Your task to perform on an android device: Search for logitech g pro on bestbuy.com, select the first entry, add it to the cart, then select checkout. Image 0: 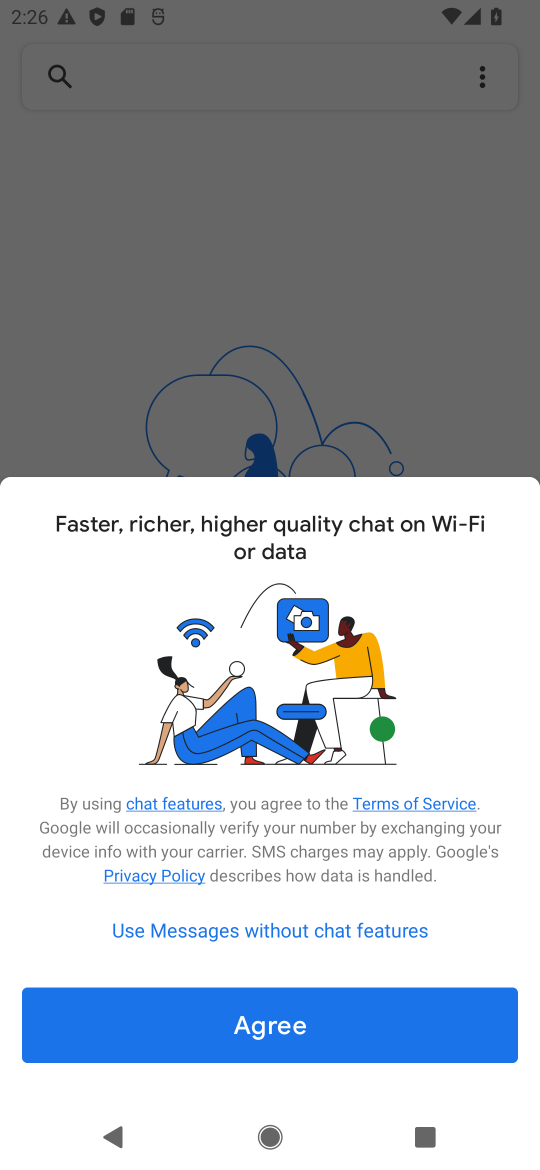
Step 0: press home button
Your task to perform on an android device: Search for logitech g pro on bestbuy.com, select the first entry, add it to the cart, then select checkout. Image 1: 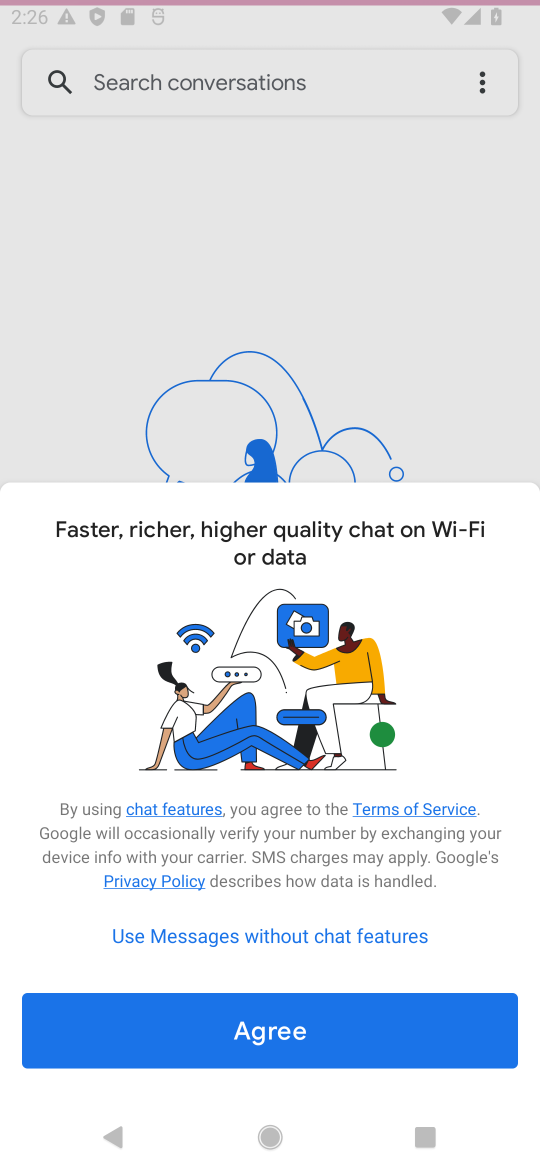
Step 1: press home button
Your task to perform on an android device: Search for logitech g pro on bestbuy.com, select the first entry, add it to the cart, then select checkout. Image 2: 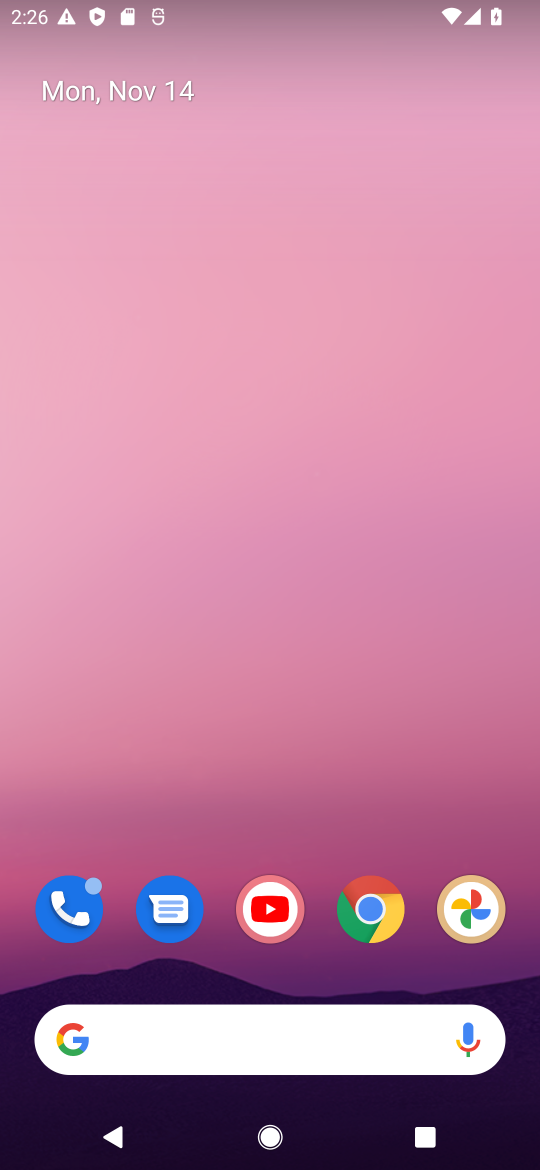
Step 2: drag from (320, 970) to (414, 66)
Your task to perform on an android device: Search for logitech g pro on bestbuy.com, select the first entry, add it to the cart, then select checkout. Image 3: 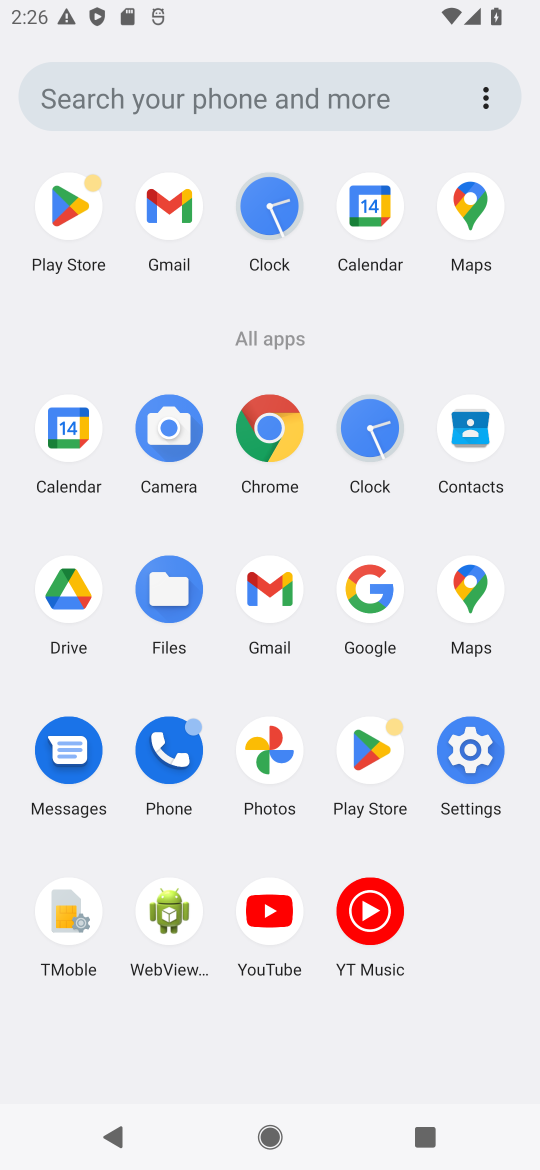
Step 3: click (268, 427)
Your task to perform on an android device: Search for logitech g pro on bestbuy.com, select the first entry, add it to the cart, then select checkout. Image 4: 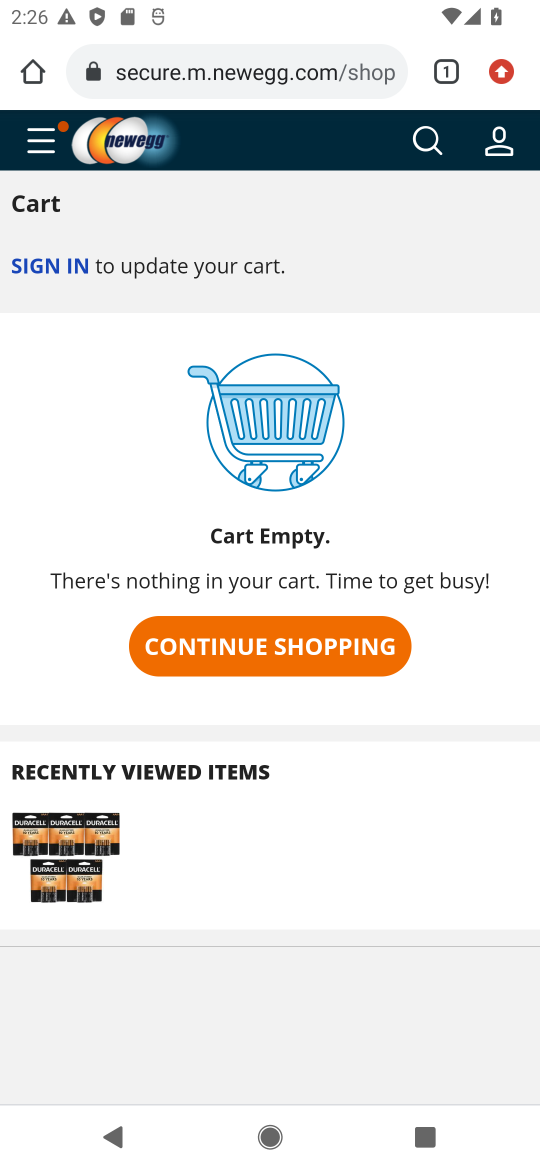
Step 4: click (160, 69)
Your task to perform on an android device: Search for logitech g pro on bestbuy.com, select the first entry, add it to the cart, then select checkout. Image 5: 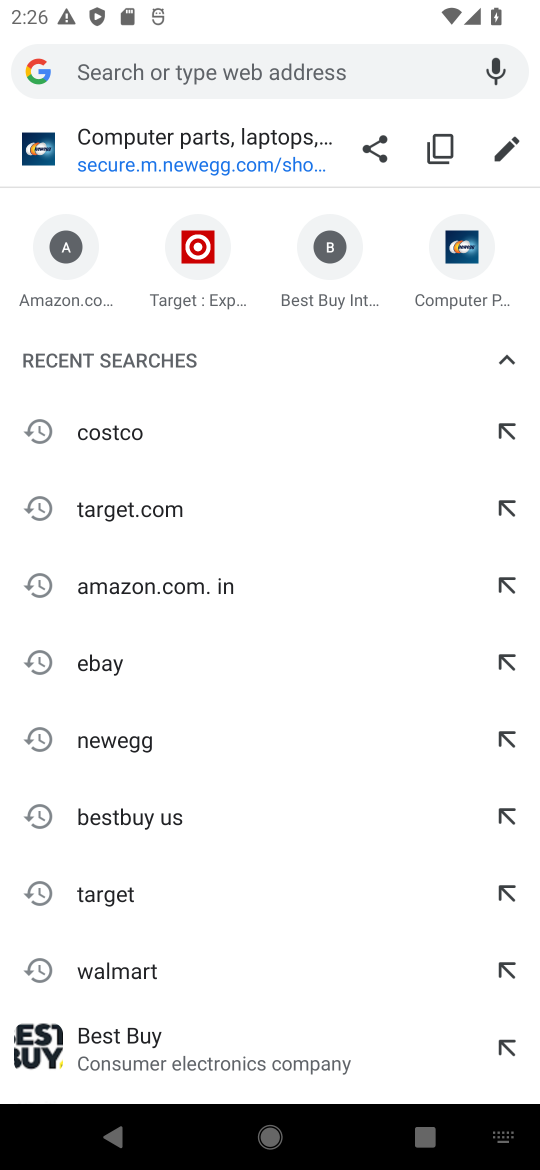
Step 5: type "bestbuy.com"
Your task to perform on an android device: Search for logitech g pro on bestbuy.com, select the first entry, add it to the cart, then select checkout. Image 6: 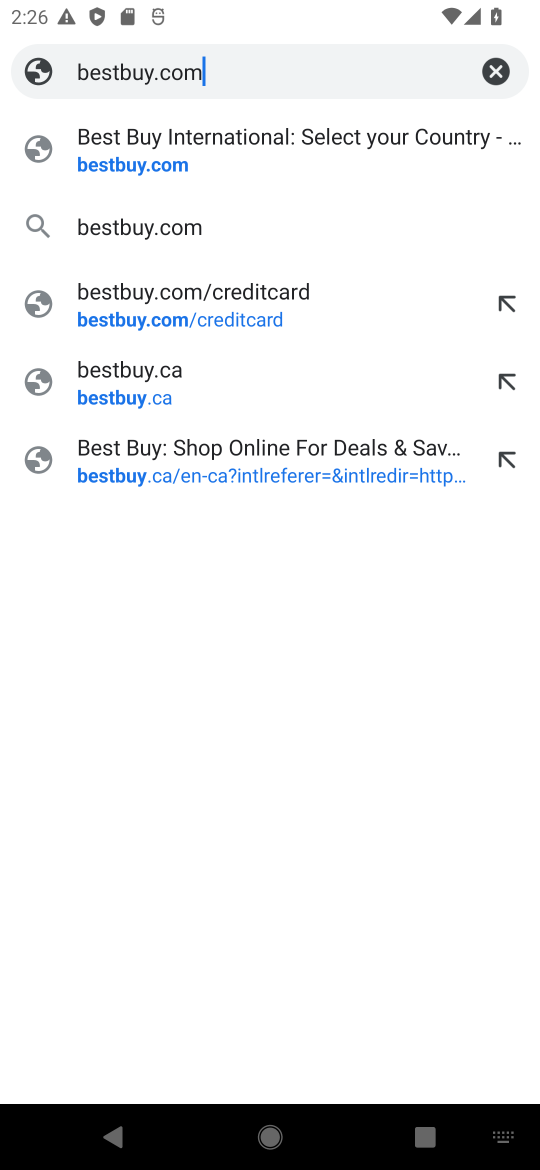
Step 6: press enter
Your task to perform on an android device: Search for logitech g pro on bestbuy.com, select the first entry, add it to the cart, then select checkout. Image 7: 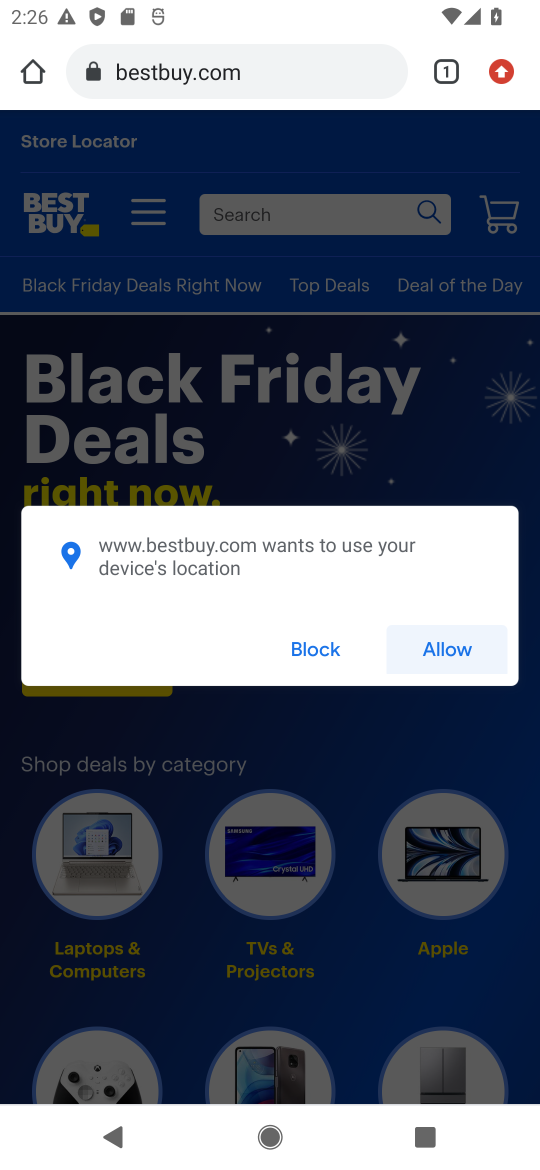
Step 7: click (314, 653)
Your task to perform on an android device: Search for logitech g pro on bestbuy.com, select the first entry, add it to the cart, then select checkout. Image 8: 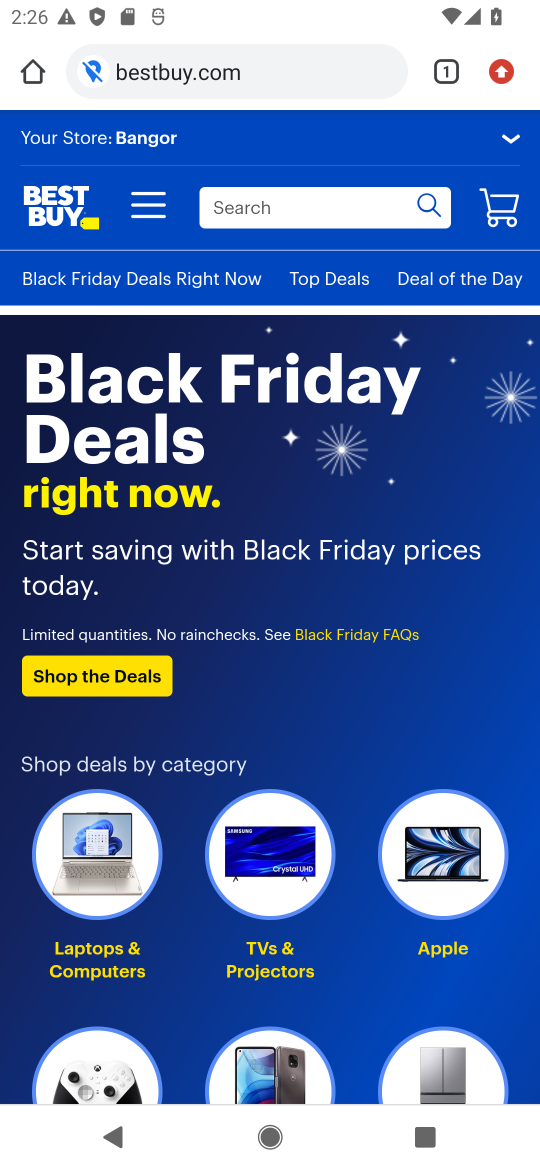
Step 8: click (334, 218)
Your task to perform on an android device: Search for logitech g pro on bestbuy.com, select the first entry, add it to the cart, then select checkout. Image 9: 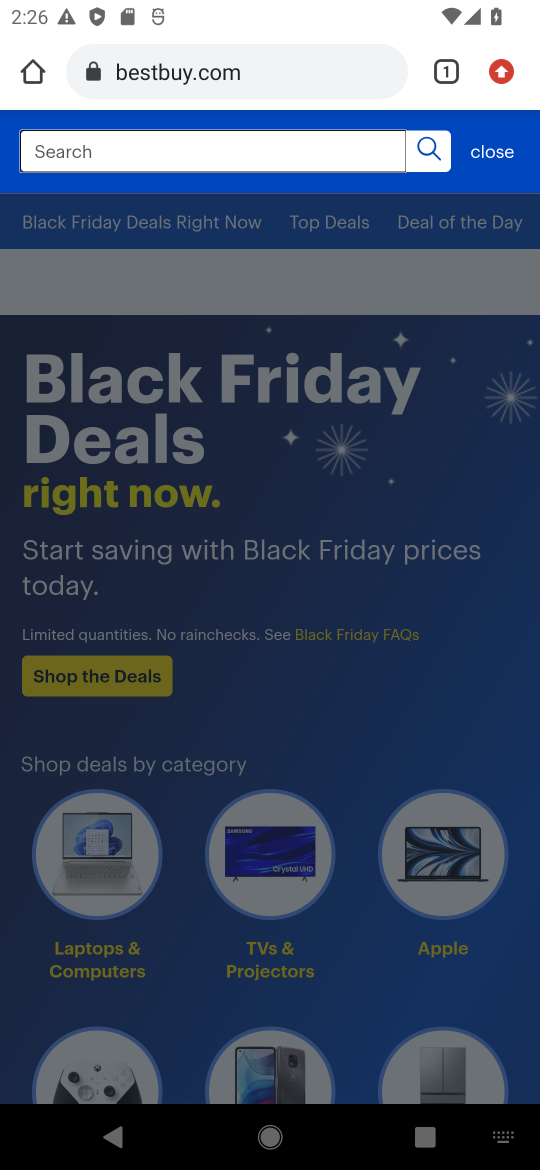
Step 9: type "logitech g pro"
Your task to perform on an android device: Search for logitech g pro on bestbuy.com, select the first entry, add it to the cart, then select checkout. Image 10: 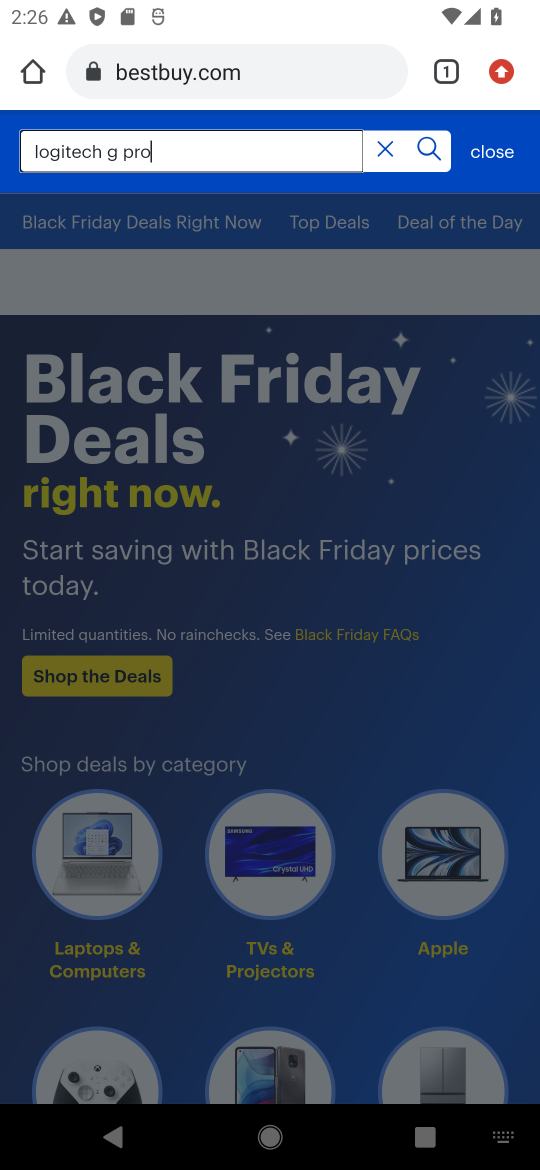
Step 10: press enter
Your task to perform on an android device: Search for logitech g pro on bestbuy.com, select the first entry, add it to the cart, then select checkout. Image 11: 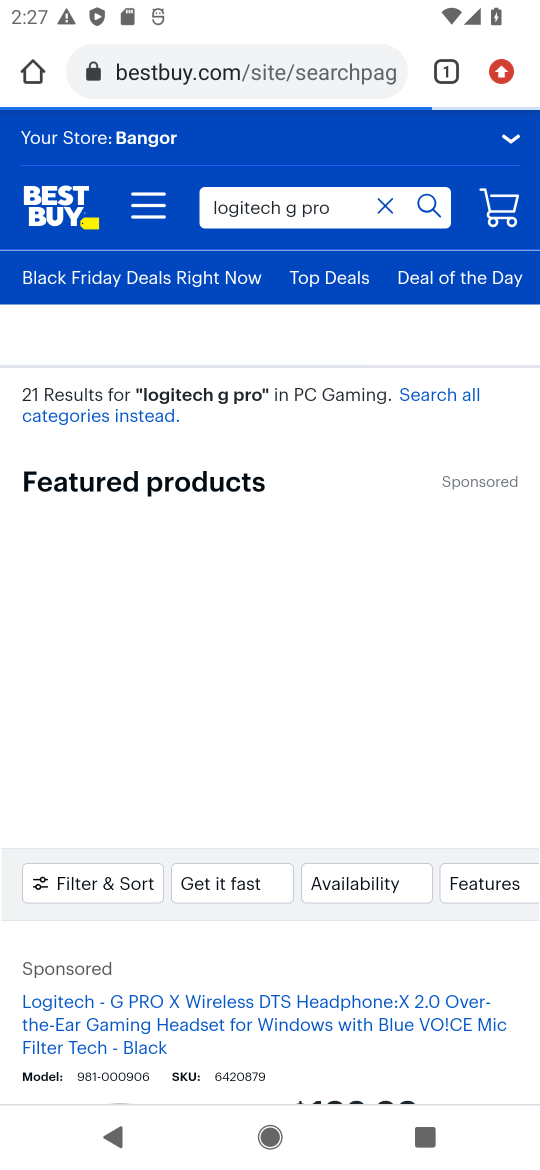
Step 11: drag from (376, 934) to (428, 209)
Your task to perform on an android device: Search for logitech g pro on bestbuy.com, select the first entry, add it to the cart, then select checkout. Image 12: 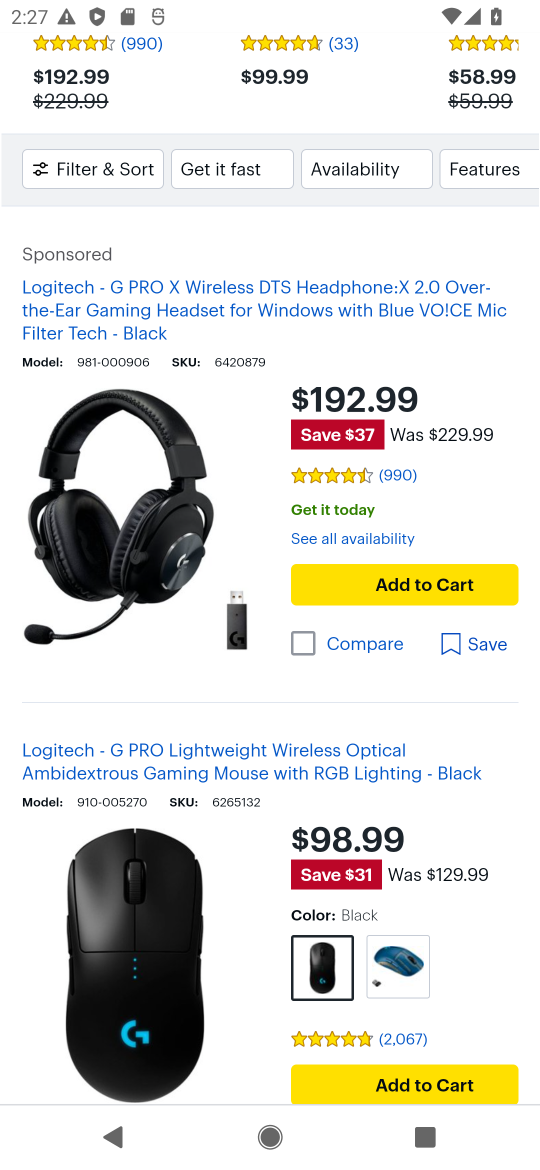
Step 12: drag from (274, 850) to (409, 304)
Your task to perform on an android device: Search for logitech g pro on bestbuy.com, select the first entry, add it to the cart, then select checkout. Image 13: 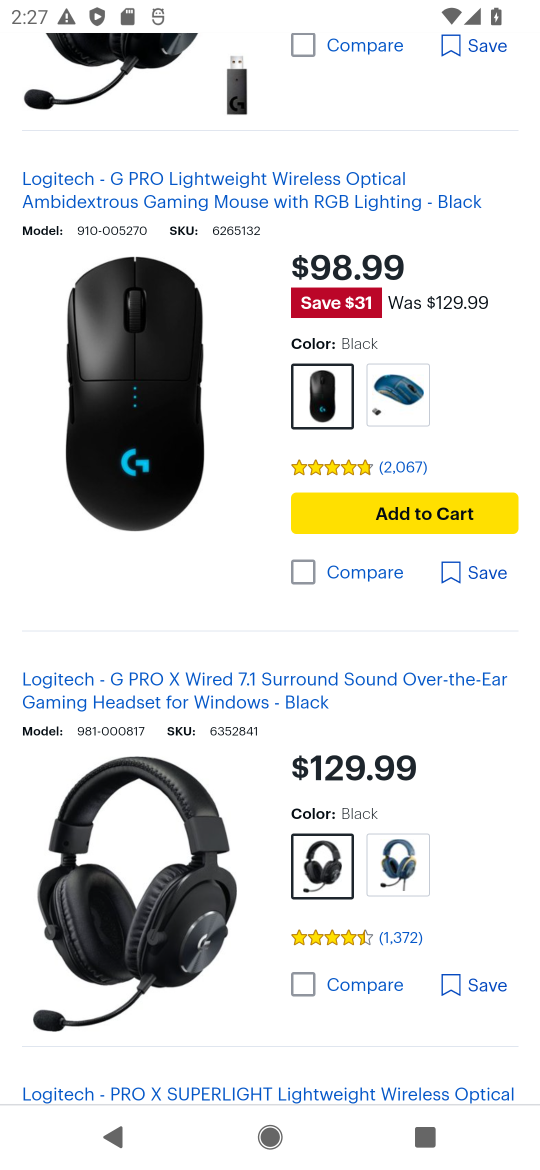
Step 13: click (400, 506)
Your task to perform on an android device: Search for logitech g pro on bestbuy.com, select the first entry, add it to the cart, then select checkout. Image 14: 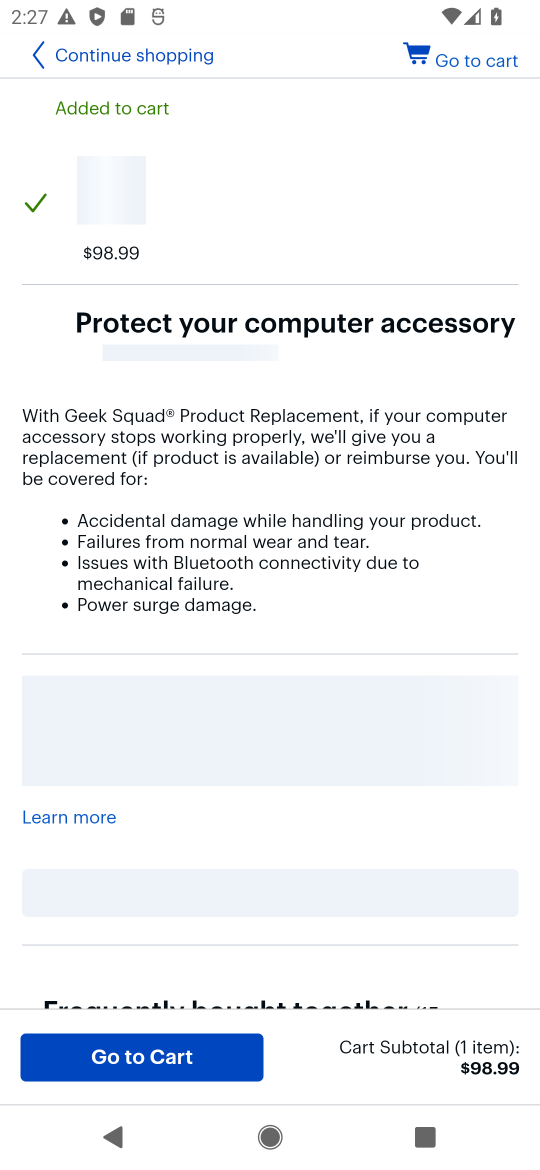
Step 14: click (191, 1067)
Your task to perform on an android device: Search for logitech g pro on bestbuy.com, select the first entry, add it to the cart, then select checkout. Image 15: 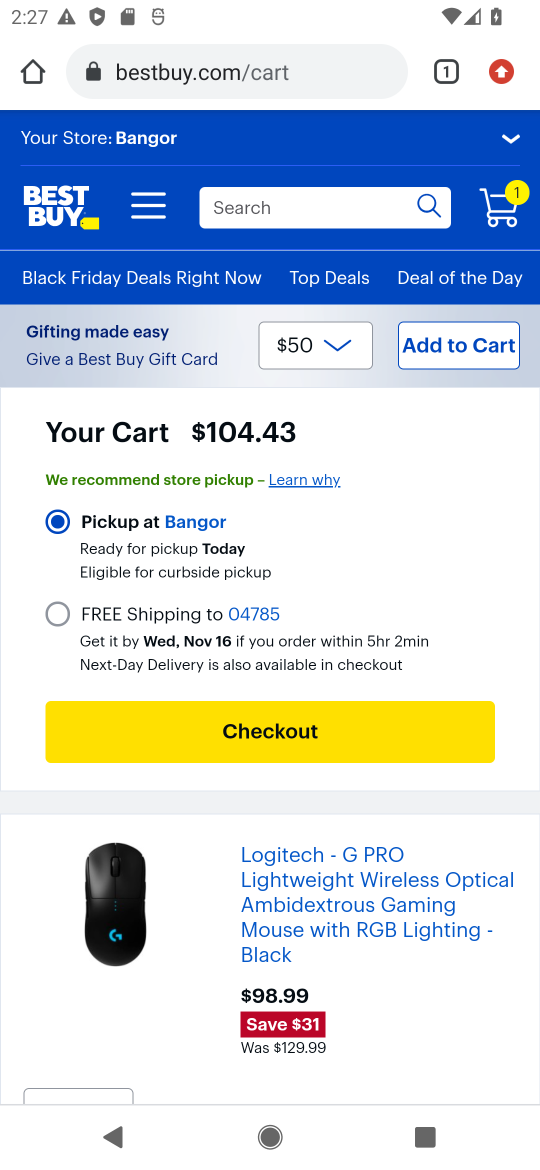
Step 15: click (331, 730)
Your task to perform on an android device: Search for logitech g pro on bestbuy.com, select the first entry, add it to the cart, then select checkout. Image 16: 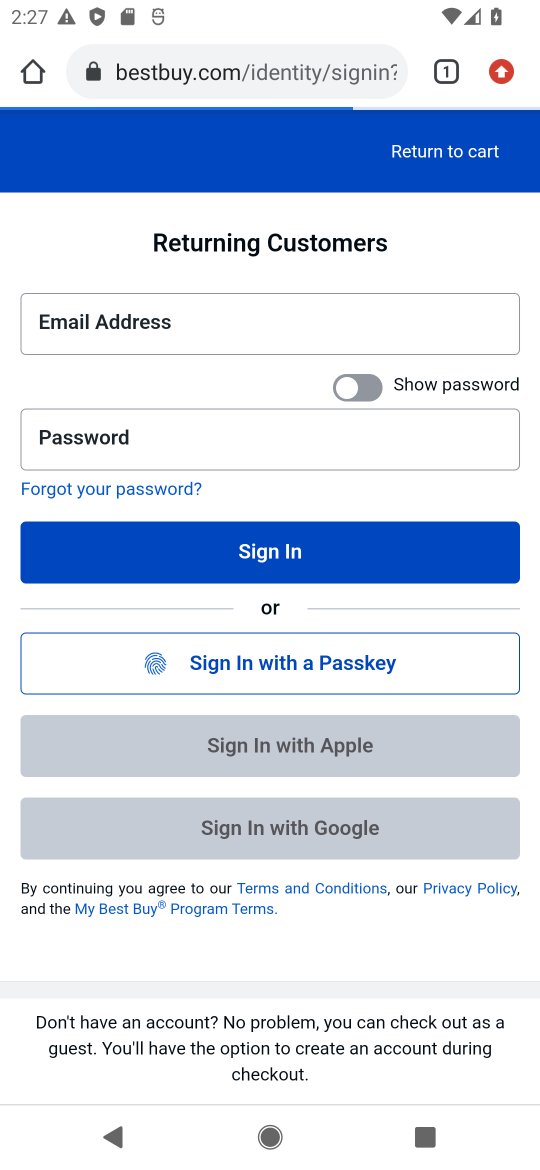
Step 16: task complete